Your task to perform on an android device: What's on my calendar today? Image 0: 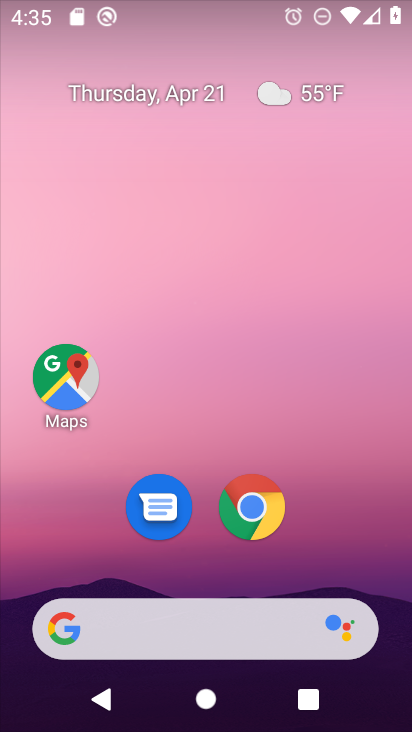
Step 0: drag from (331, 536) to (325, 114)
Your task to perform on an android device: What's on my calendar today? Image 1: 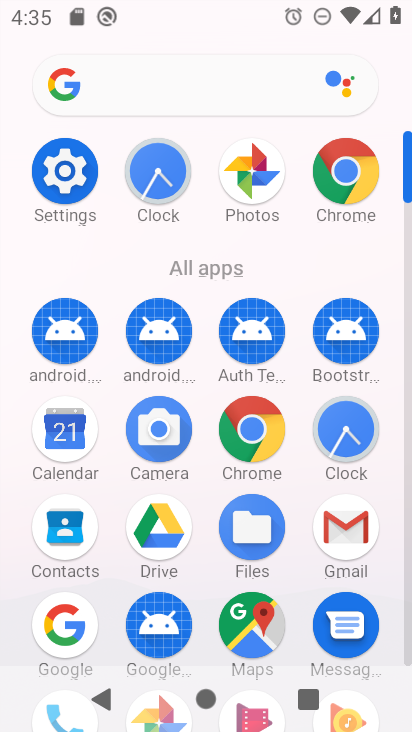
Step 1: click (58, 433)
Your task to perform on an android device: What's on my calendar today? Image 2: 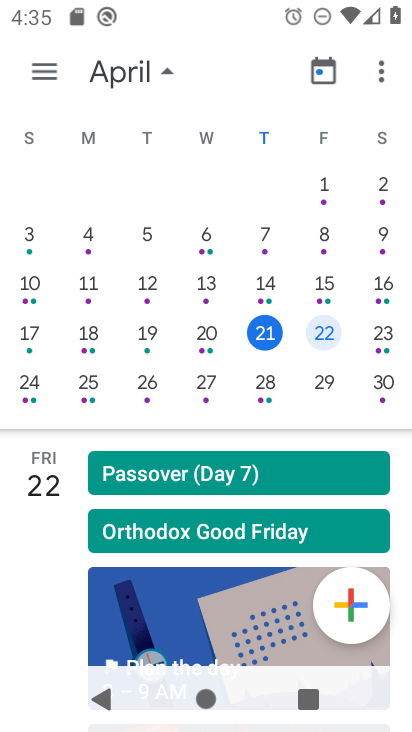
Step 2: click (267, 341)
Your task to perform on an android device: What's on my calendar today? Image 3: 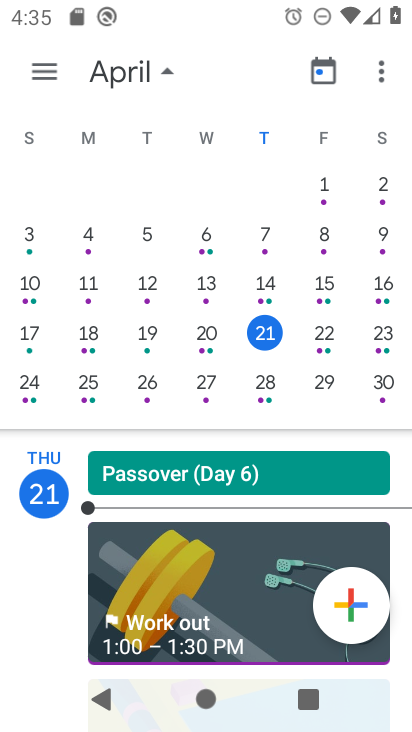
Step 3: task complete